Your task to perform on an android device: Go to battery settings Image 0: 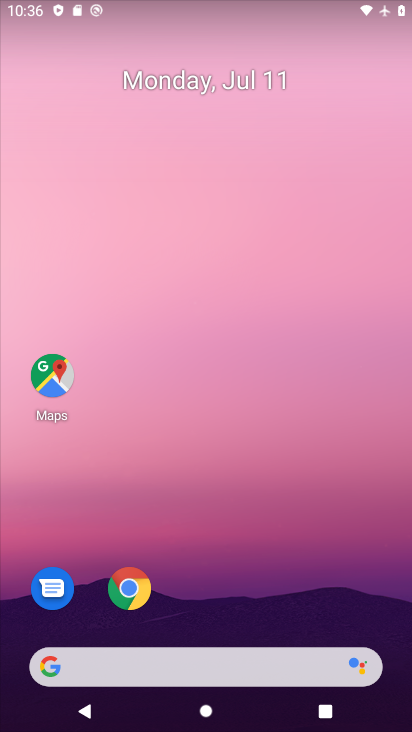
Step 0: drag from (130, 660) to (252, 230)
Your task to perform on an android device: Go to battery settings Image 1: 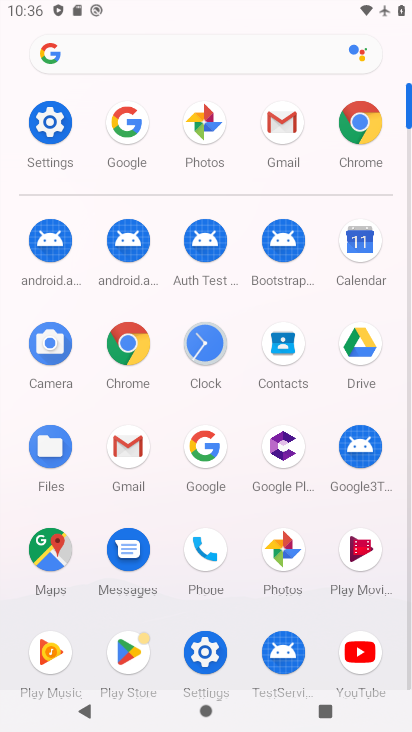
Step 1: click (58, 121)
Your task to perform on an android device: Go to battery settings Image 2: 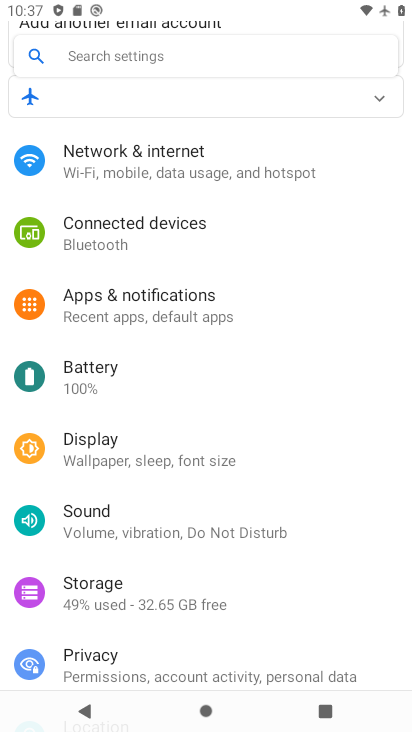
Step 2: click (100, 366)
Your task to perform on an android device: Go to battery settings Image 3: 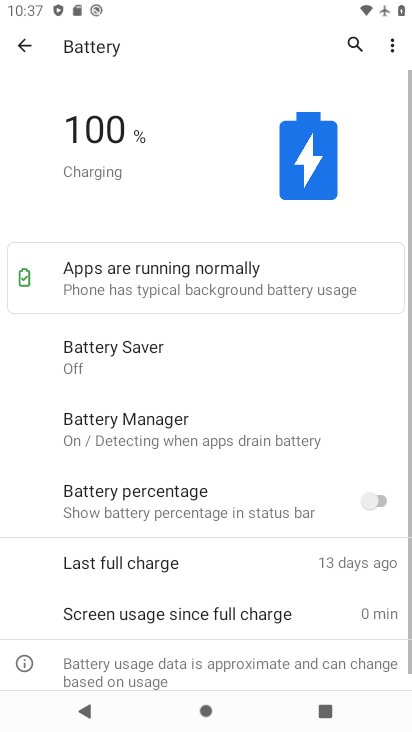
Step 3: task complete